Your task to perform on an android device: Go to Android settings Image 0: 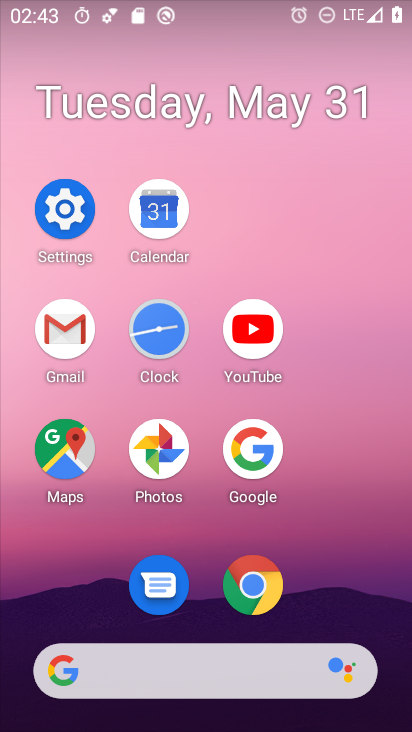
Step 0: click (59, 210)
Your task to perform on an android device: Go to Android settings Image 1: 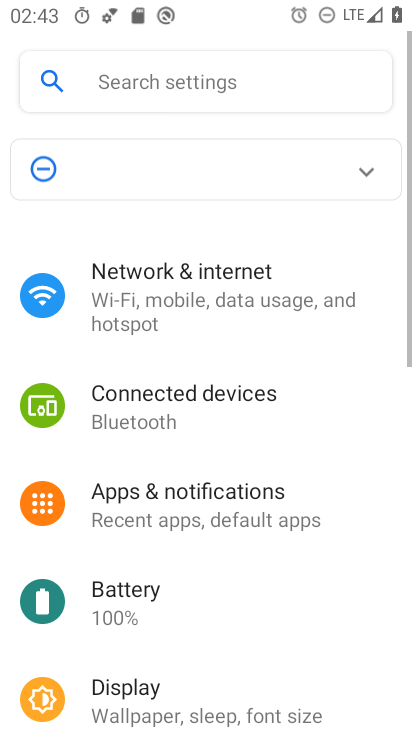
Step 1: task complete